Your task to perform on an android device: What is the recent news? Image 0: 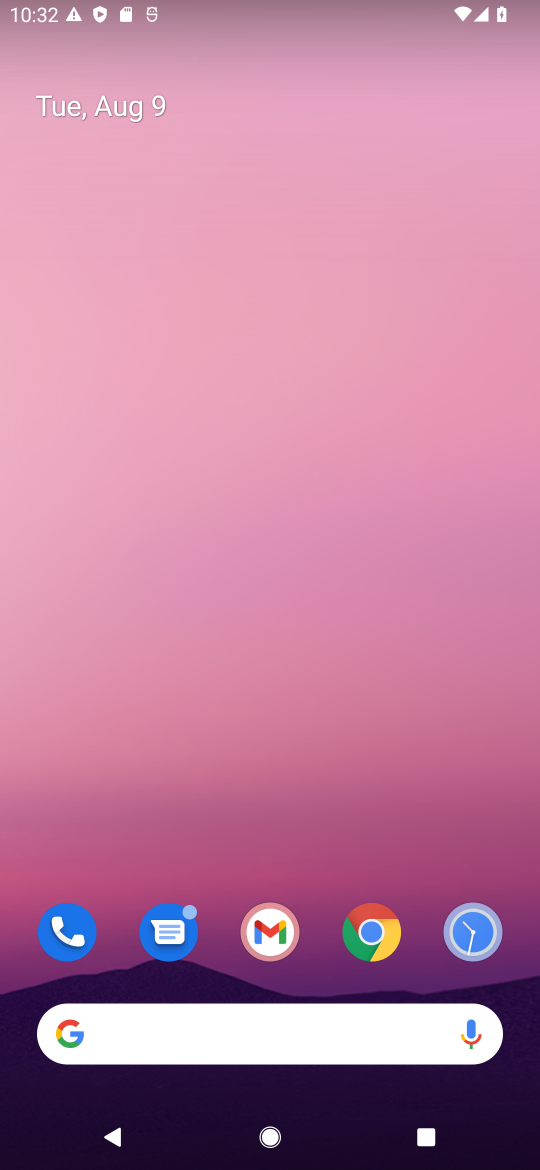
Step 0: click (243, 1039)
Your task to perform on an android device: What is the recent news? Image 1: 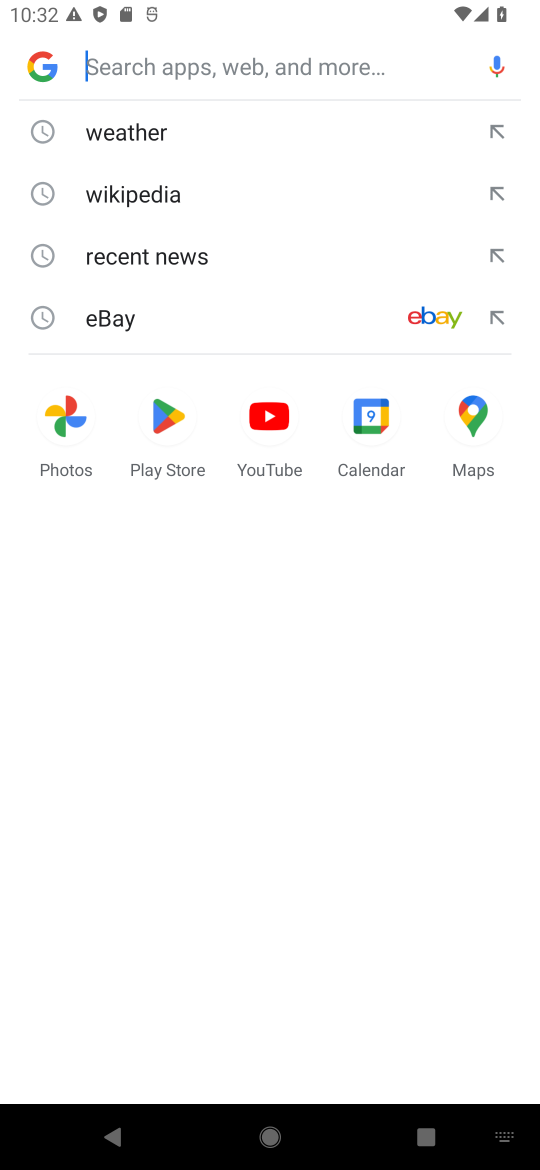
Step 1: click (149, 268)
Your task to perform on an android device: What is the recent news? Image 2: 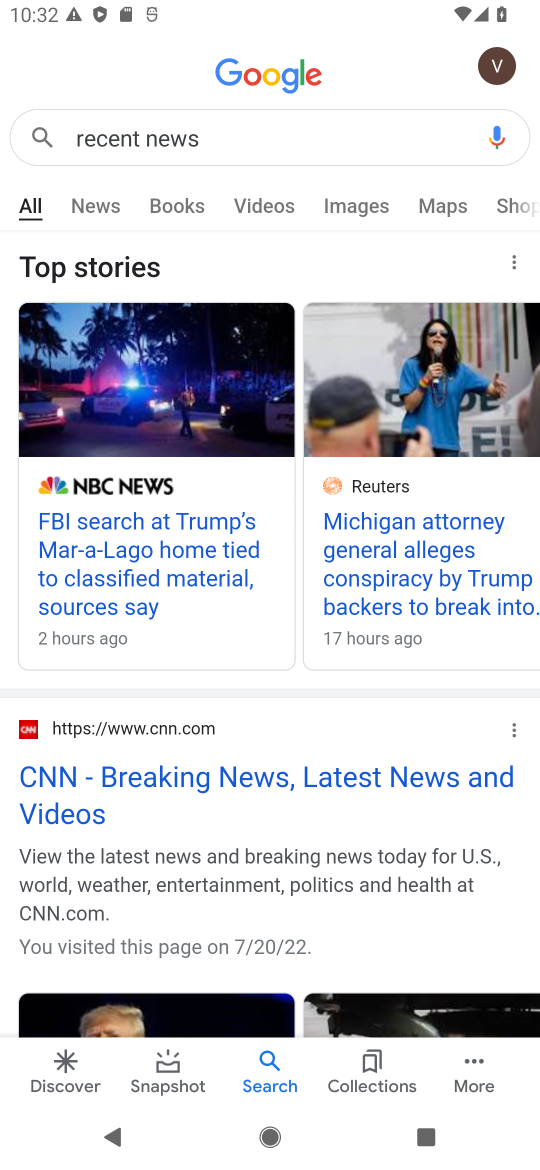
Step 2: task complete